Your task to perform on an android device: Open network settings Image 0: 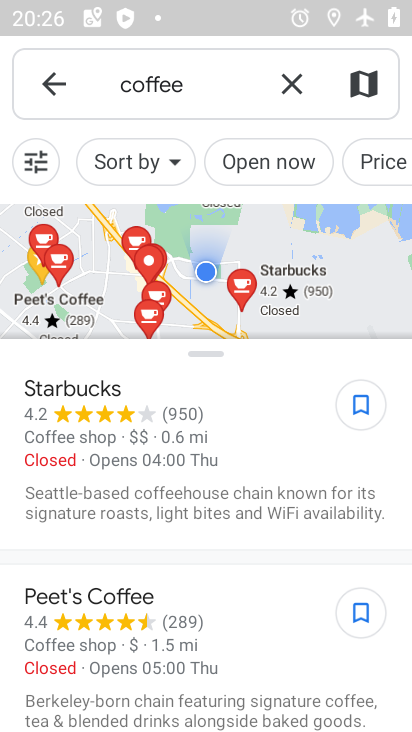
Step 0: press home button
Your task to perform on an android device: Open network settings Image 1: 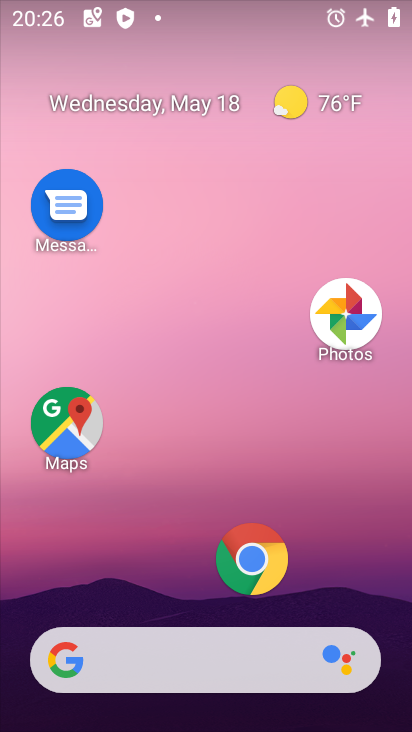
Step 1: drag from (228, 633) to (196, 96)
Your task to perform on an android device: Open network settings Image 2: 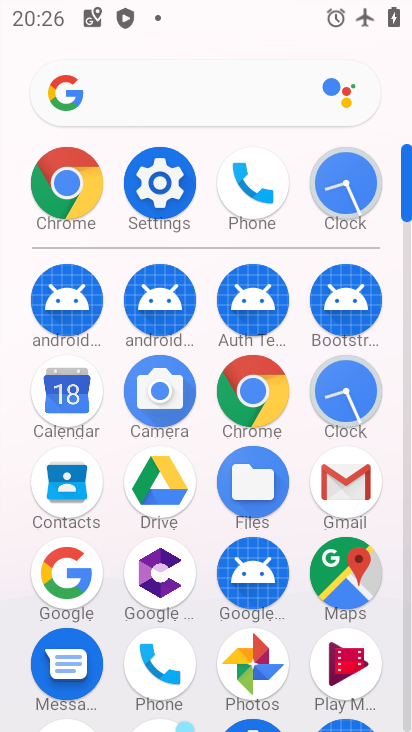
Step 2: click (182, 191)
Your task to perform on an android device: Open network settings Image 3: 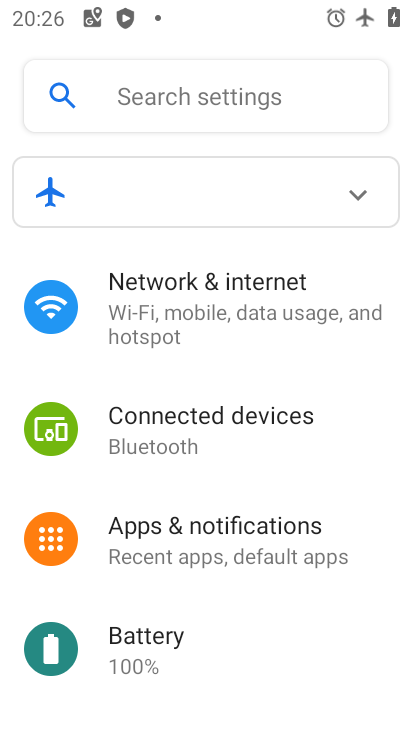
Step 3: click (222, 311)
Your task to perform on an android device: Open network settings Image 4: 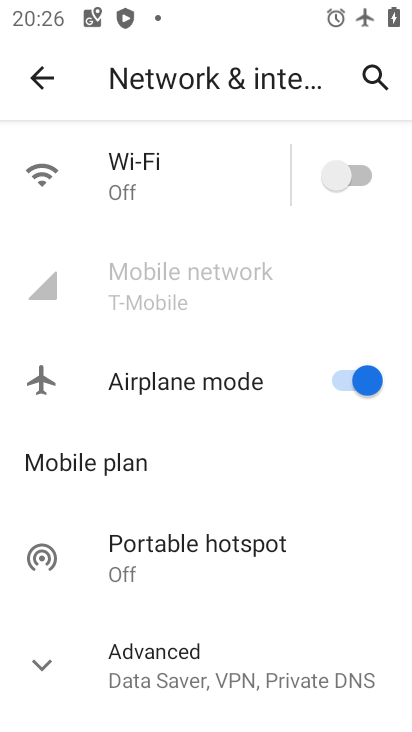
Step 4: task complete